Your task to perform on an android device: Set the phone to "Do not disturb". Image 0: 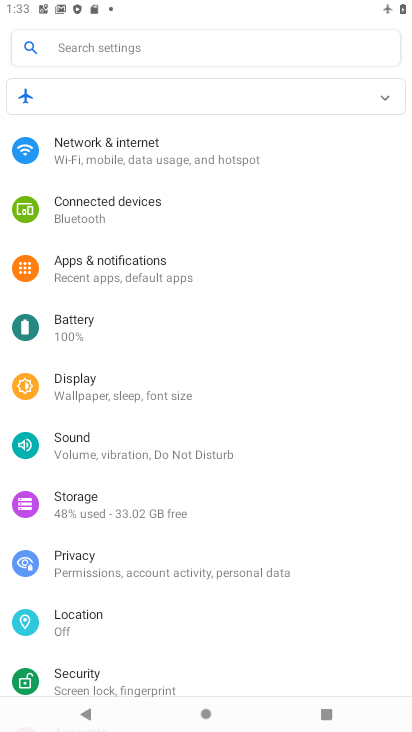
Step 0: click (144, 454)
Your task to perform on an android device: Set the phone to "Do not disturb". Image 1: 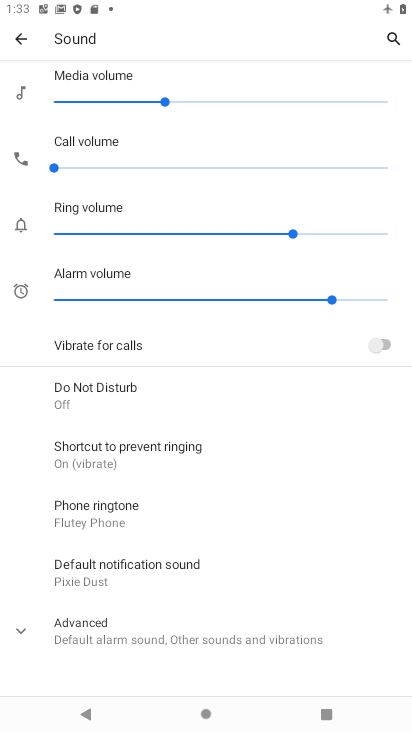
Step 1: click (86, 392)
Your task to perform on an android device: Set the phone to "Do not disturb". Image 2: 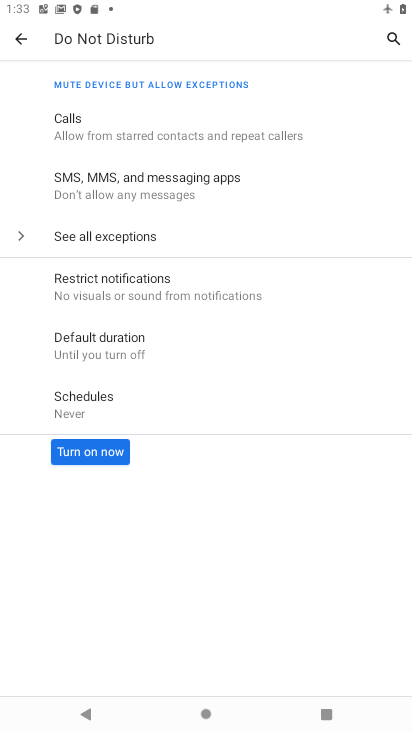
Step 2: click (93, 448)
Your task to perform on an android device: Set the phone to "Do not disturb". Image 3: 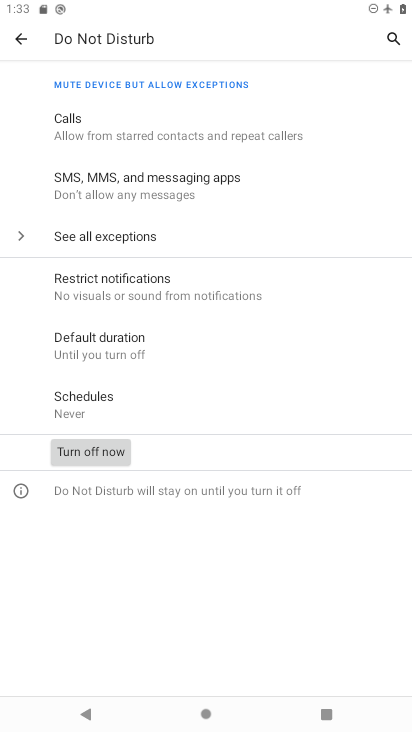
Step 3: task complete